Your task to perform on an android device: turn off picture-in-picture Image 0: 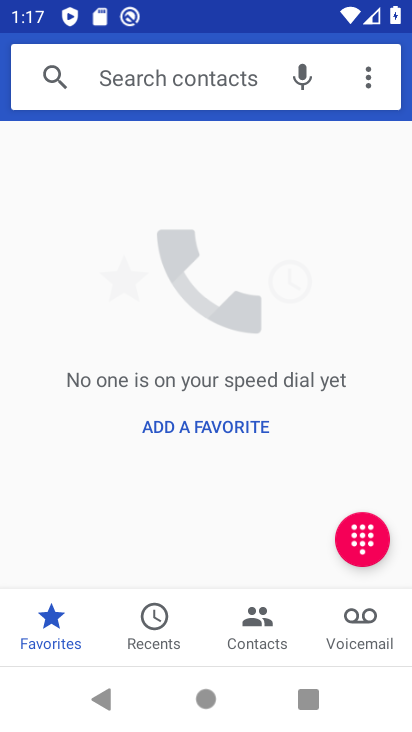
Step 0: press back button
Your task to perform on an android device: turn off picture-in-picture Image 1: 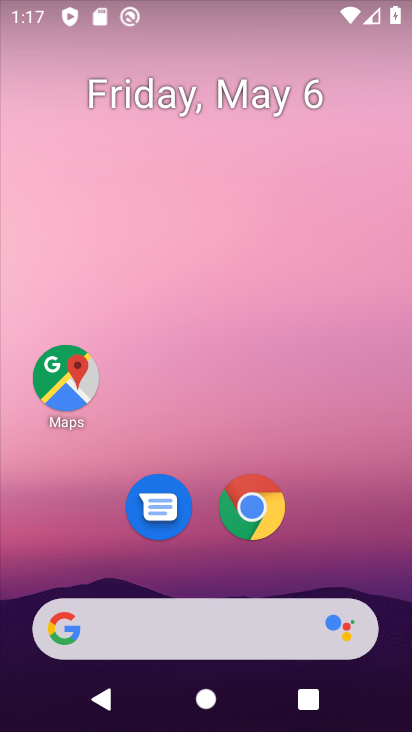
Step 1: drag from (116, 594) to (210, 126)
Your task to perform on an android device: turn off picture-in-picture Image 2: 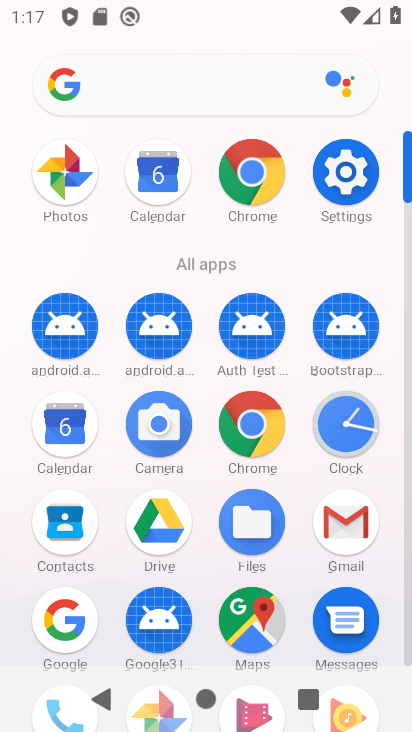
Step 2: click (352, 162)
Your task to perform on an android device: turn off picture-in-picture Image 3: 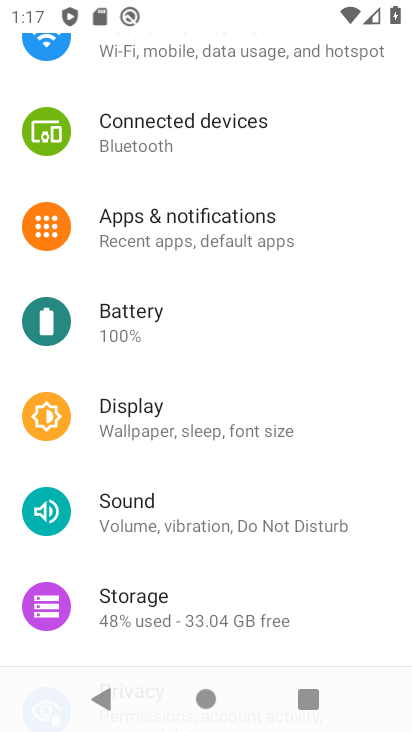
Step 3: click (211, 246)
Your task to perform on an android device: turn off picture-in-picture Image 4: 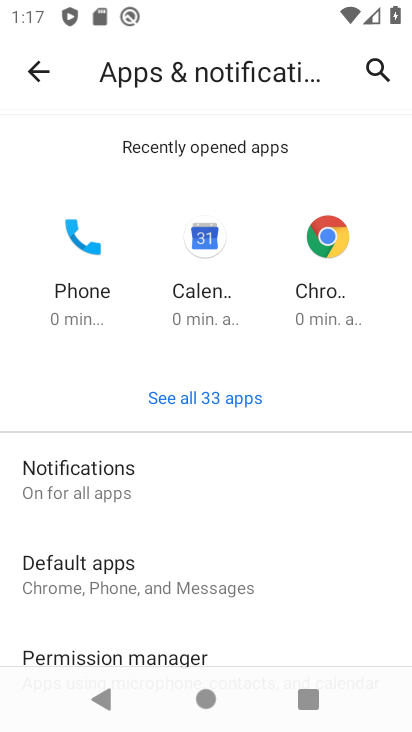
Step 4: drag from (177, 596) to (264, 236)
Your task to perform on an android device: turn off picture-in-picture Image 5: 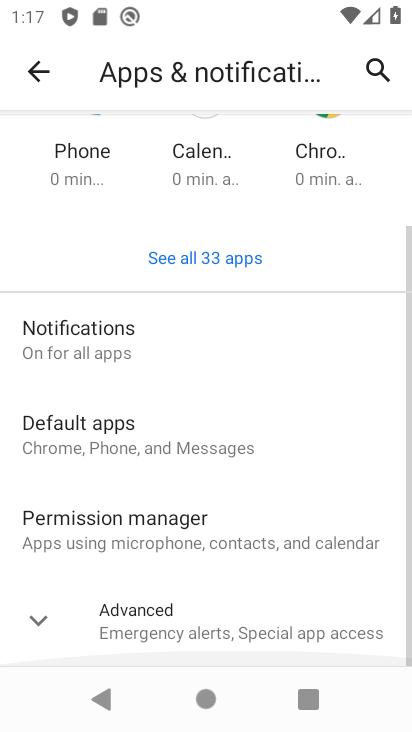
Step 5: click (174, 615)
Your task to perform on an android device: turn off picture-in-picture Image 6: 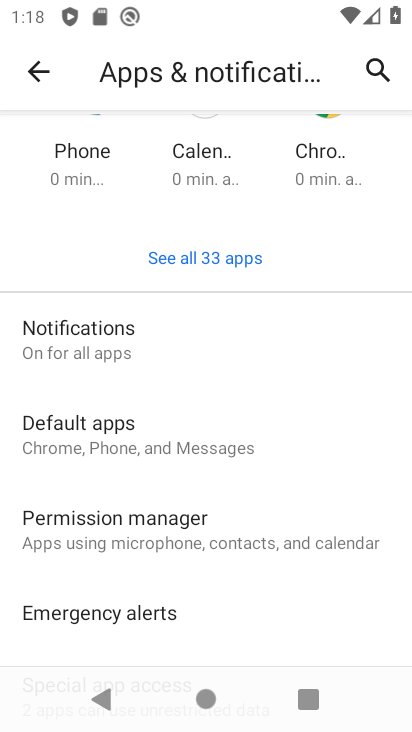
Step 6: drag from (170, 641) to (297, 239)
Your task to perform on an android device: turn off picture-in-picture Image 7: 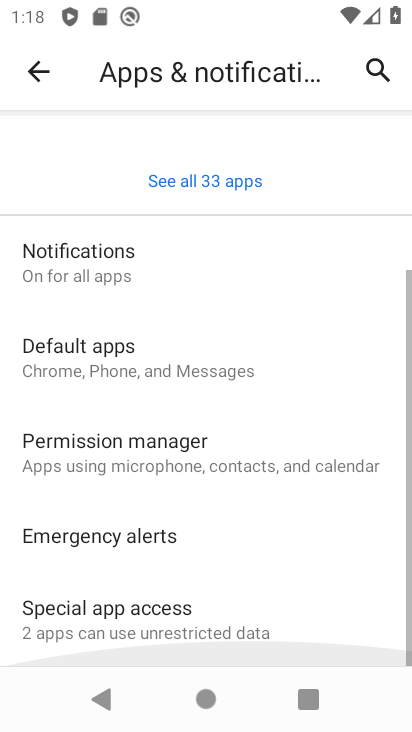
Step 7: click (212, 630)
Your task to perform on an android device: turn off picture-in-picture Image 8: 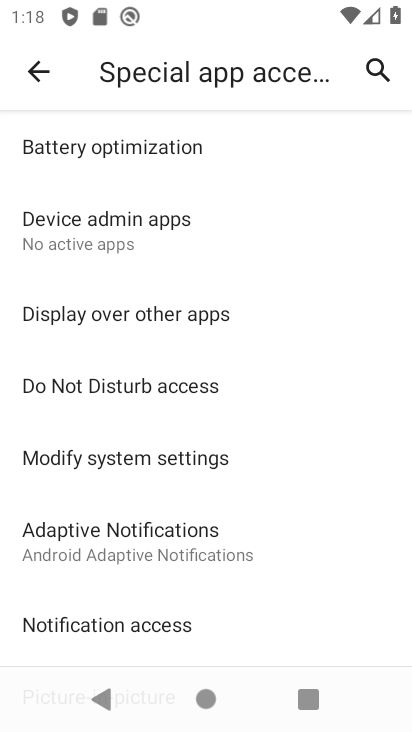
Step 8: drag from (178, 609) to (275, 168)
Your task to perform on an android device: turn off picture-in-picture Image 9: 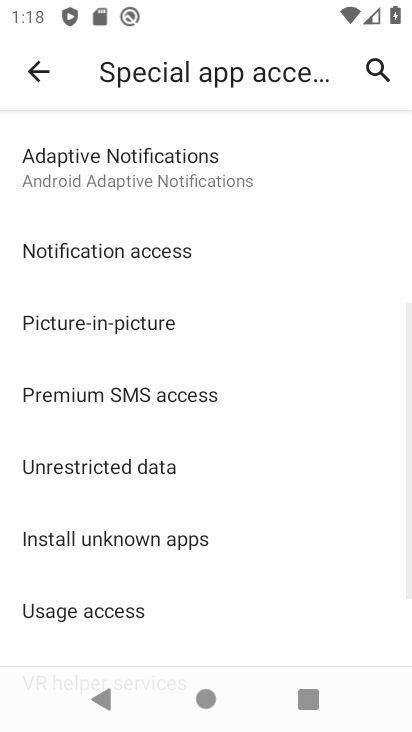
Step 9: drag from (170, 645) to (268, 237)
Your task to perform on an android device: turn off picture-in-picture Image 10: 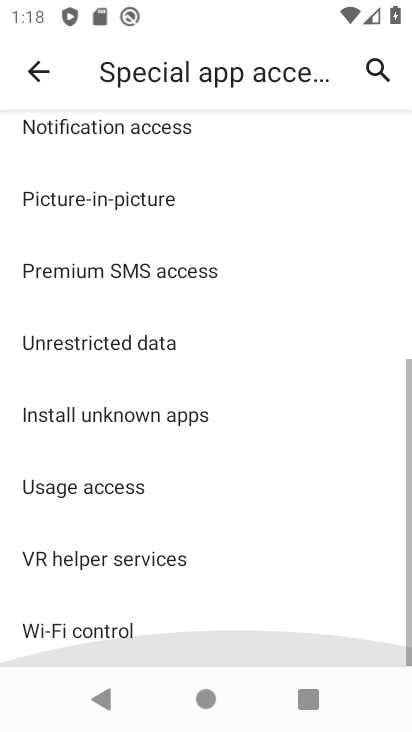
Step 10: drag from (264, 245) to (243, 572)
Your task to perform on an android device: turn off picture-in-picture Image 11: 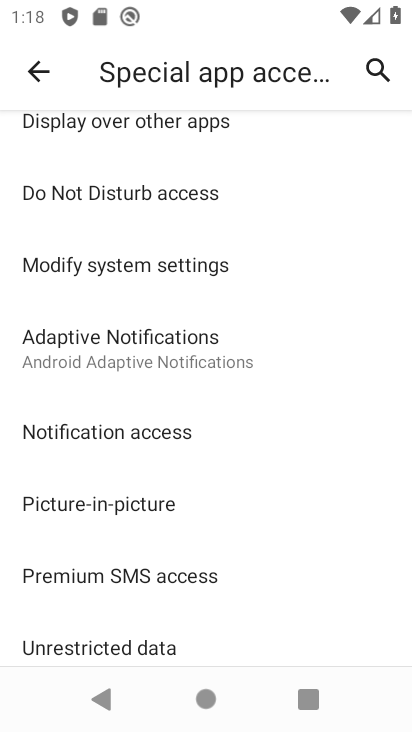
Step 11: click (154, 526)
Your task to perform on an android device: turn off picture-in-picture Image 12: 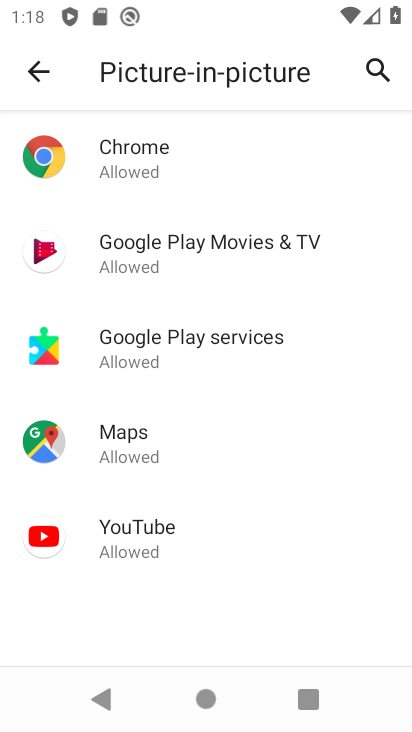
Step 12: click (295, 153)
Your task to perform on an android device: turn off picture-in-picture Image 13: 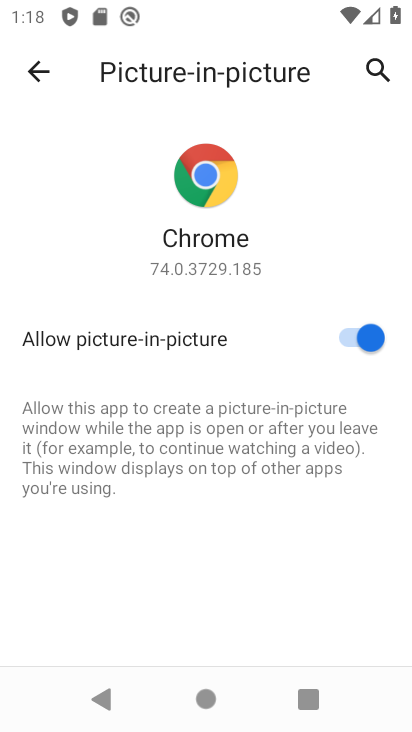
Step 13: click (343, 338)
Your task to perform on an android device: turn off picture-in-picture Image 14: 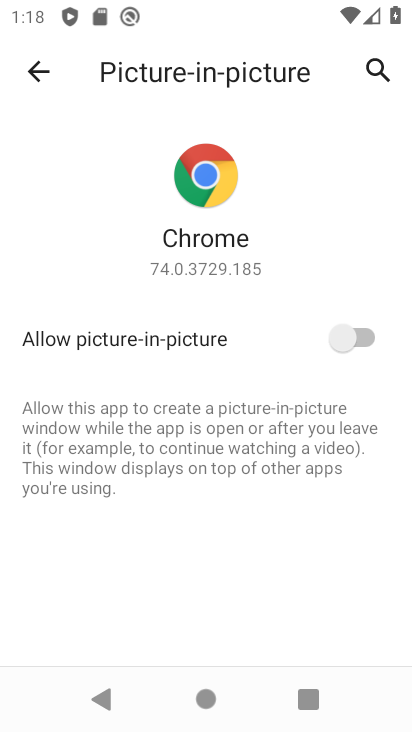
Step 14: press back button
Your task to perform on an android device: turn off picture-in-picture Image 15: 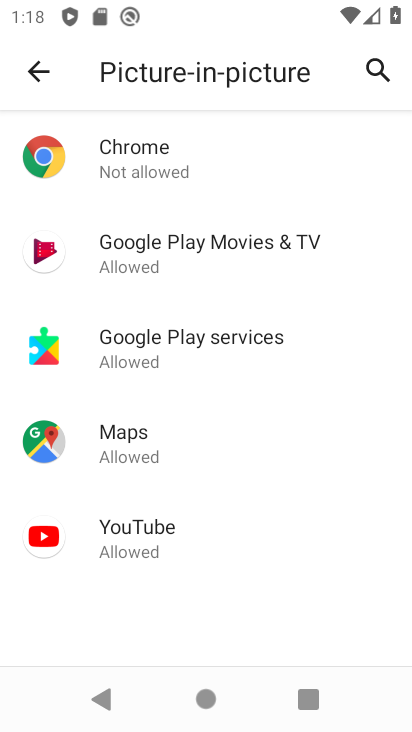
Step 15: click (174, 259)
Your task to perform on an android device: turn off picture-in-picture Image 16: 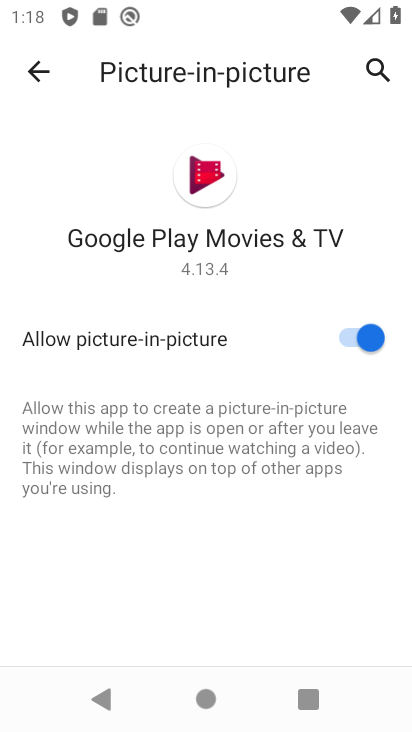
Step 16: click (350, 343)
Your task to perform on an android device: turn off picture-in-picture Image 17: 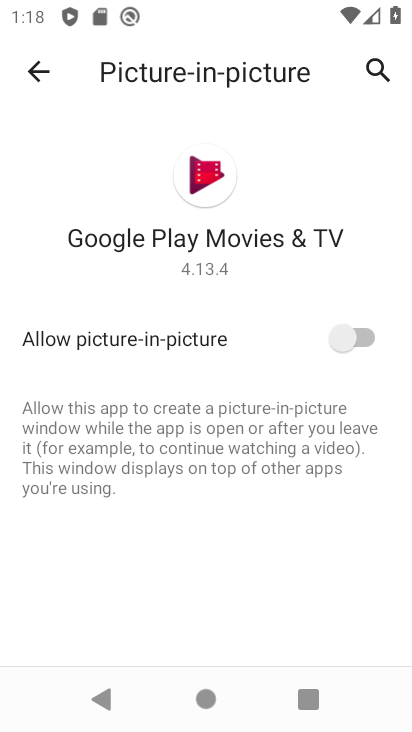
Step 17: press back button
Your task to perform on an android device: turn off picture-in-picture Image 18: 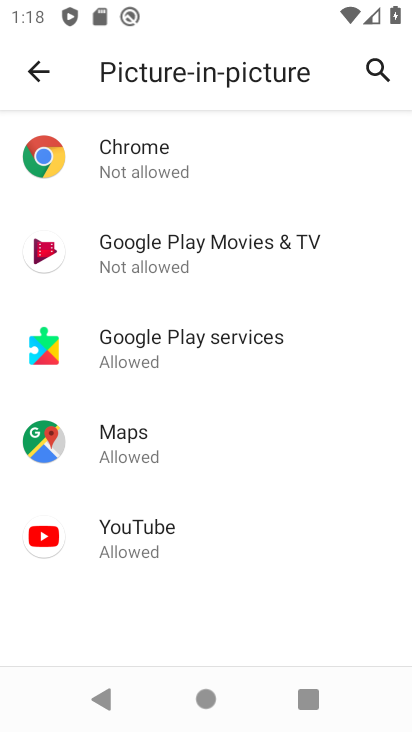
Step 18: click (197, 334)
Your task to perform on an android device: turn off picture-in-picture Image 19: 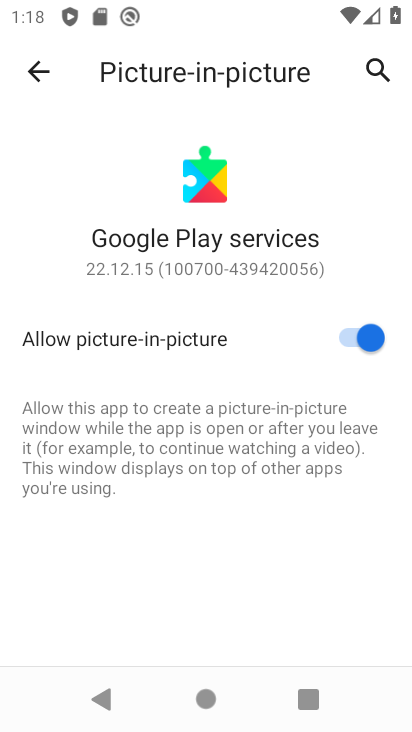
Step 19: click (353, 332)
Your task to perform on an android device: turn off picture-in-picture Image 20: 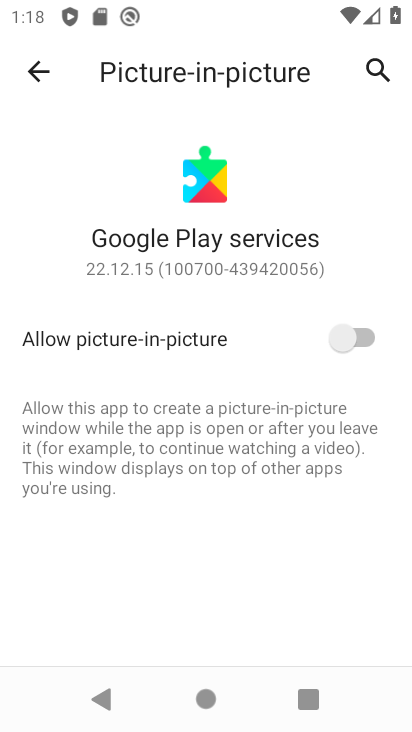
Step 20: press back button
Your task to perform on an android device: turn off picture-in-picture Image 21: 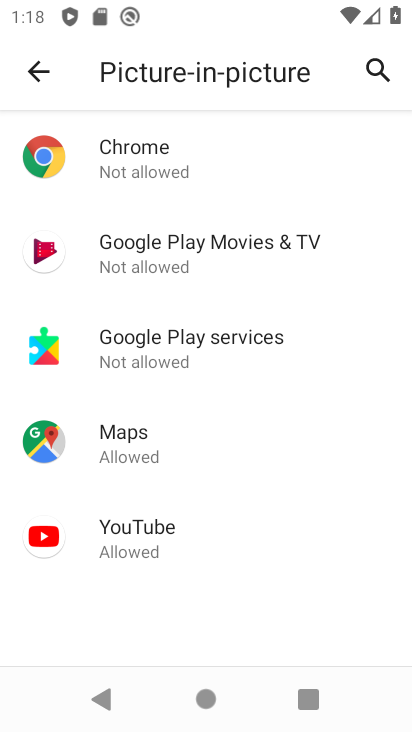
Step 21: click (285, 432)
Your task to perform on an android device: turn off picture-in-picture Image 22: 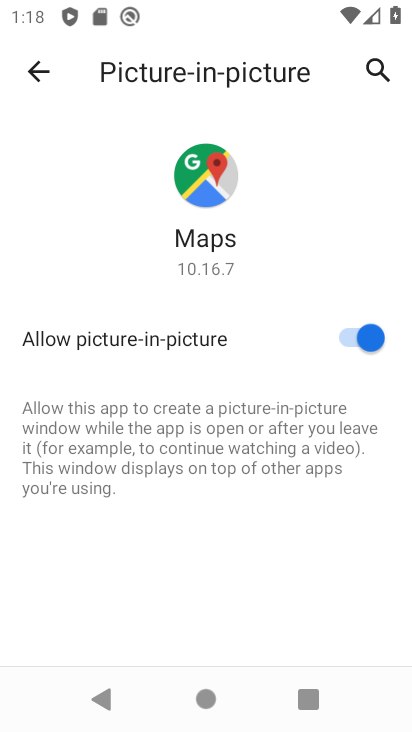
Step 22: click (353, 341)
Your task to perform on an android device: turn off picture-in-picture Image 23: 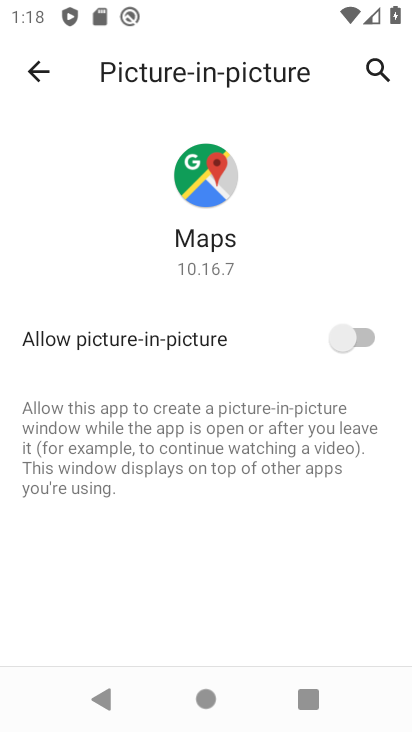
Step 23: press back button
Your task to perform on an android device: turn off picture-in-picture Image 24: 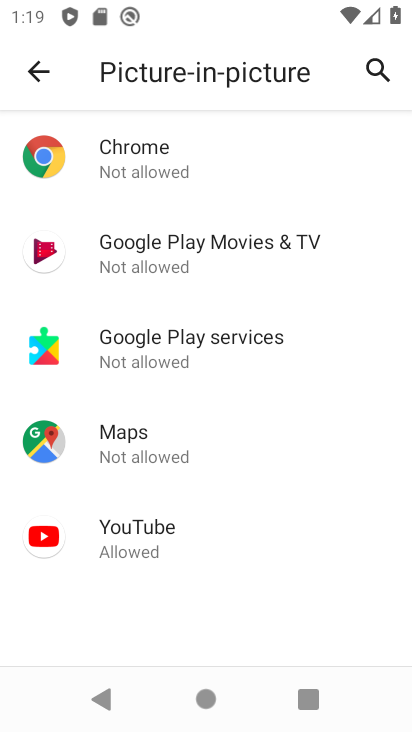
Step 24: click (221, 527)
Your task to perform on an android device: turn off picture-in-picture Image 25: 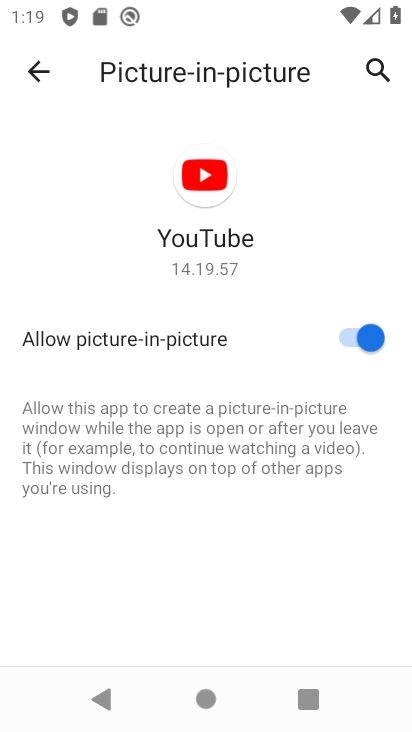
Step 25: click (350, 335)
Your task to perform on an android device: turn off picture-in-picture Image 26: 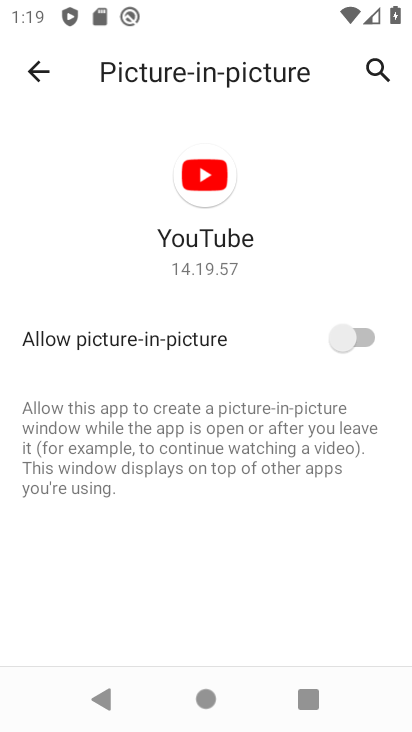
Step 26: task complete